Your task to perform on an android device: delete a single message in the gmail app Image 0: 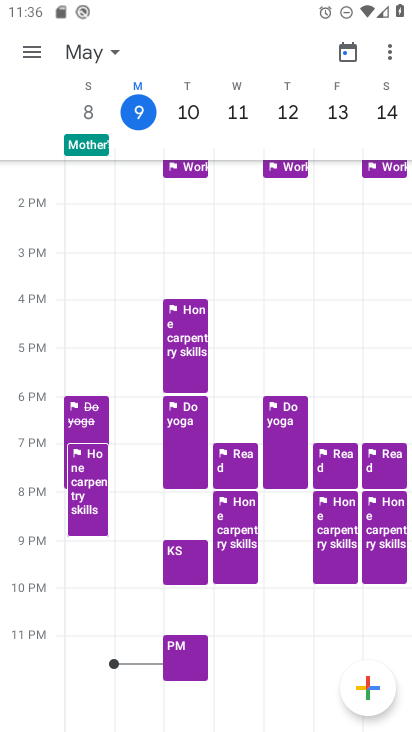
Step 0: press home button
Your task to perform on an android device: delete a single message in the gmail app Image 1: 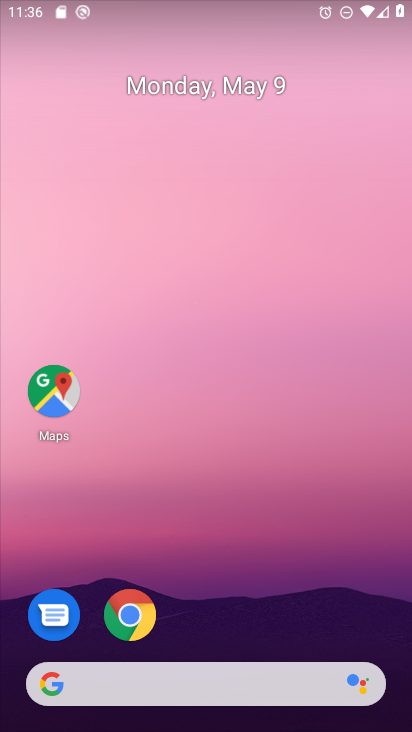
Step 1: drag from (334, 727) to (359, 333)
Your task to perform on an android device: delete a single message in the gmail app Image 2: 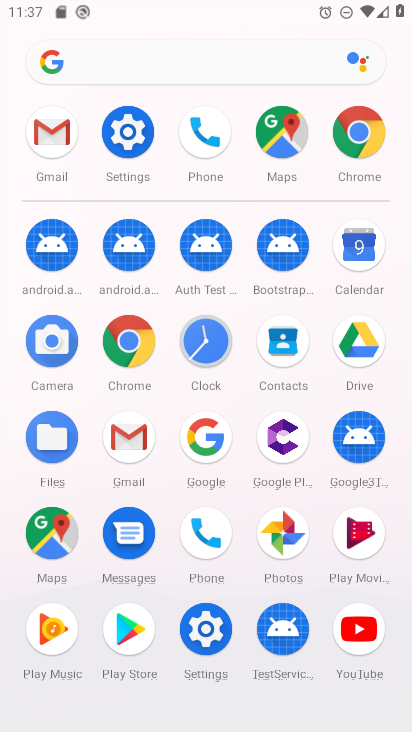
Step 2: click (130, 453)
Your task to perform on an android device: delete a single message in the gmail app Image 3: 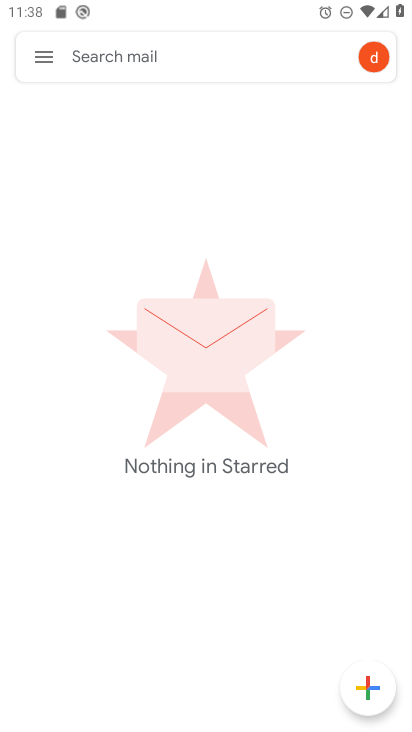
Step 3: click (35, 72)
Your task to perform on an android device: delete a single message in the gmail app Image 4: 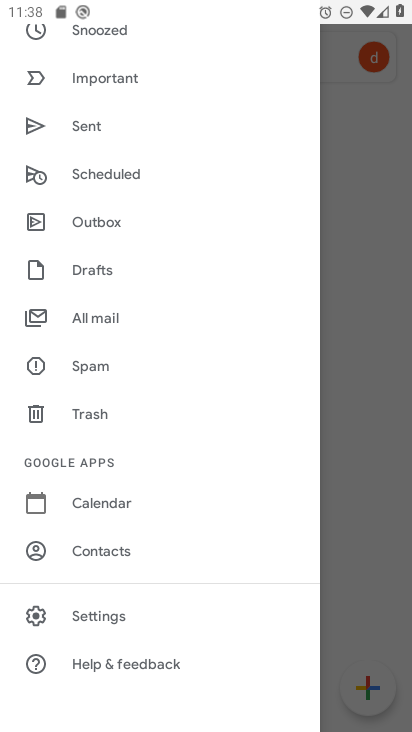
Step 4: click (105, 319)
Your task to perform on an android device: delete a single message in the gmail app Image 5: 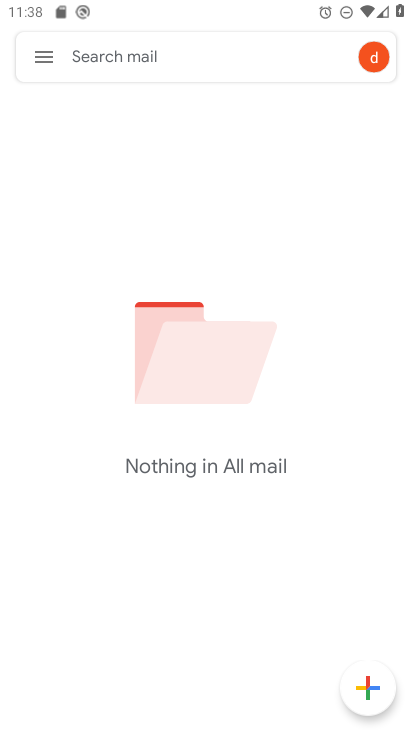
Step 5: task complete